Your task to perform on an android device: Open maps Image 0: 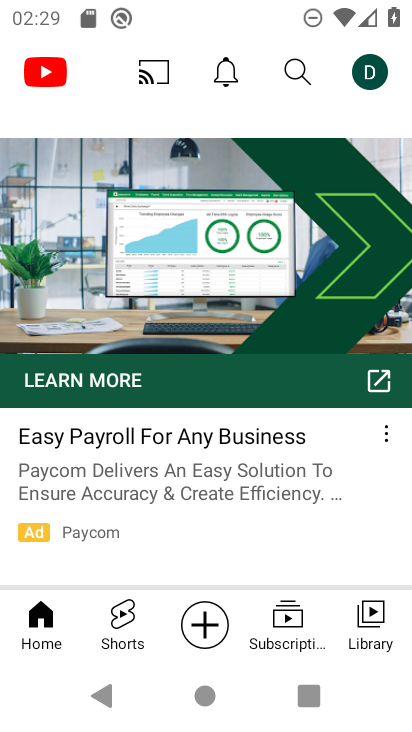
Step 0: press home button
Your task to perform on an android device: Open maps Image 1: 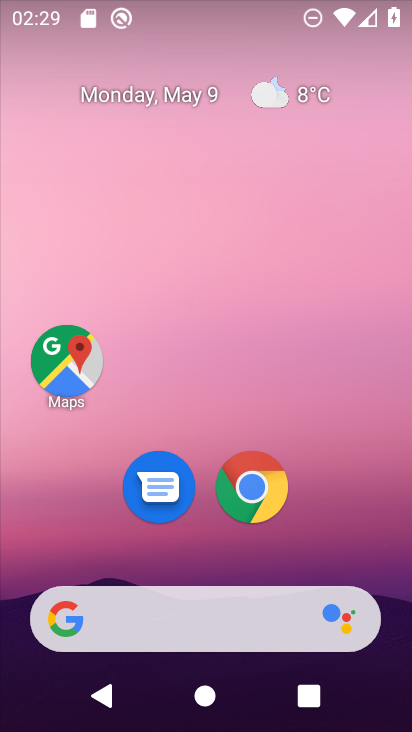
Step 1: drag from (378, 543) to (353, 247)
Your task to perform on an android device: Open maps Image 2: 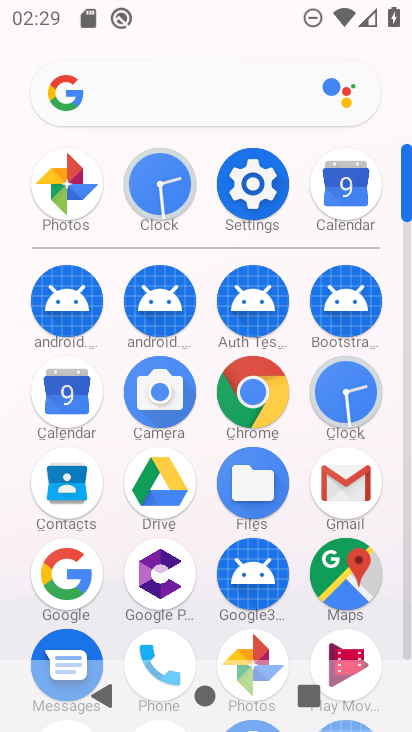
Step 2: click (333, 557)
Your task to perform on an android device: Open maps Image 3: 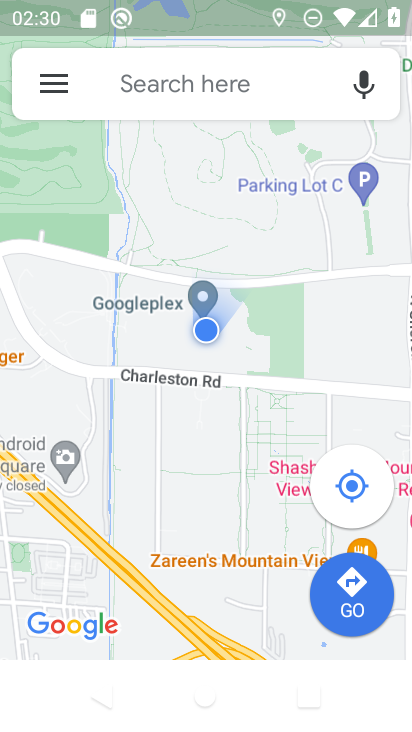
Step 3: task complete